Your task to perform on an android device: choose inbox layout in the gmail app Image 0: 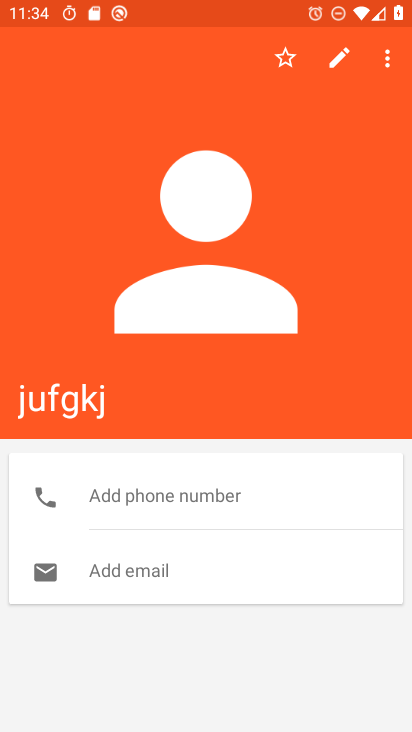
Step 0: press home button
Your task to perform on an android device: choose inbox layout in the gmail app Image 1: 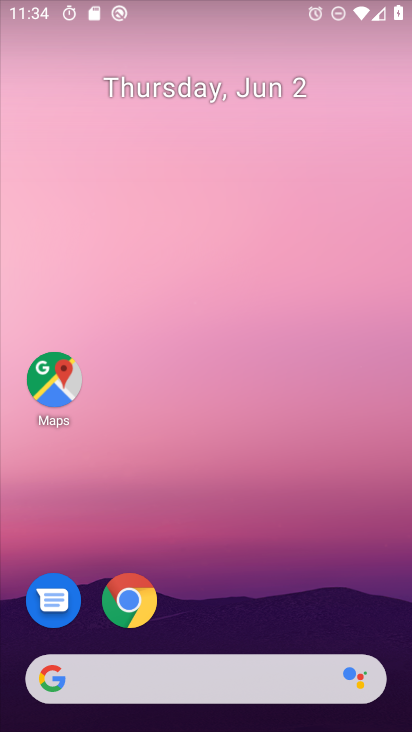
Step 1: drag from (227, 588) to (208, 55)
Your task to perform on an android device: choose inbox layout in the gmail app Image 2: 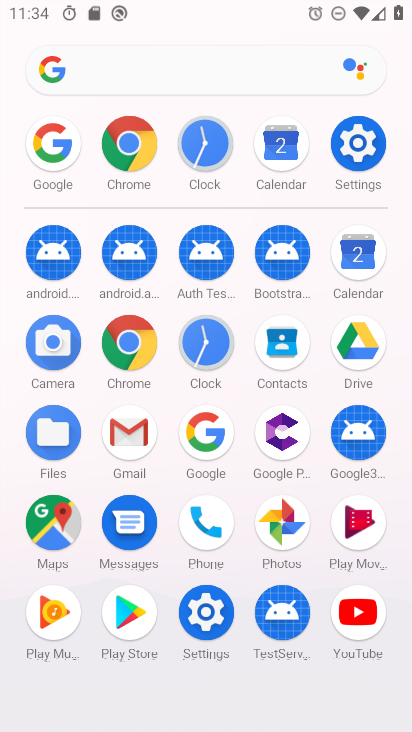
Step 2: click (138, 423)
Your task to perform on an android device: choose inbox layout in the gmail app Image 3: 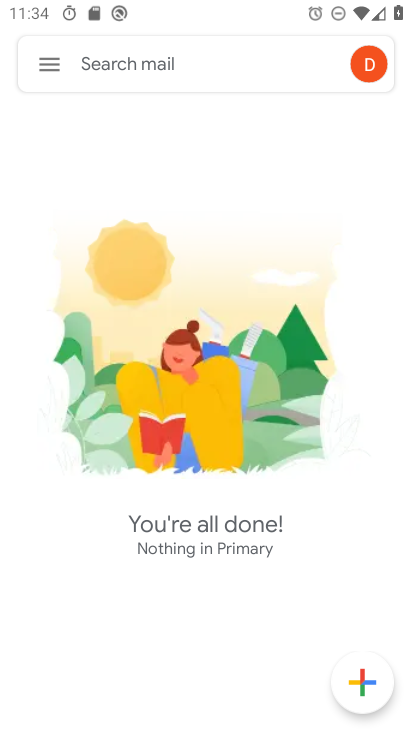
Step 3: click (39, 64)
Your task to perform on an android device: choose inbox layout in the gmail app Image 4: 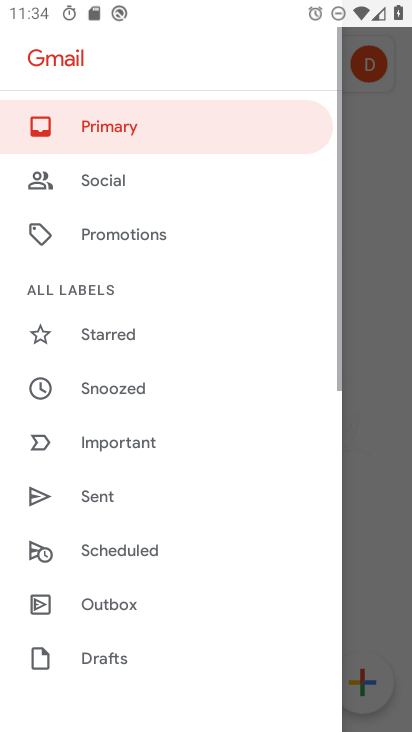
Step 4: drag from (127, 635) to (131, 115)
Your task to perform on an android device: choose inbox layout in the gmail app Image 5: 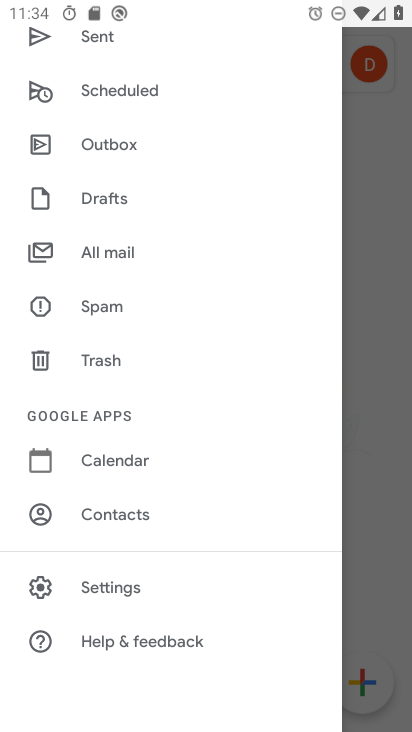
Step 5: click (122, 588)
Your task to perform on an android device: choose inbox layout in the gmail app Image 6: 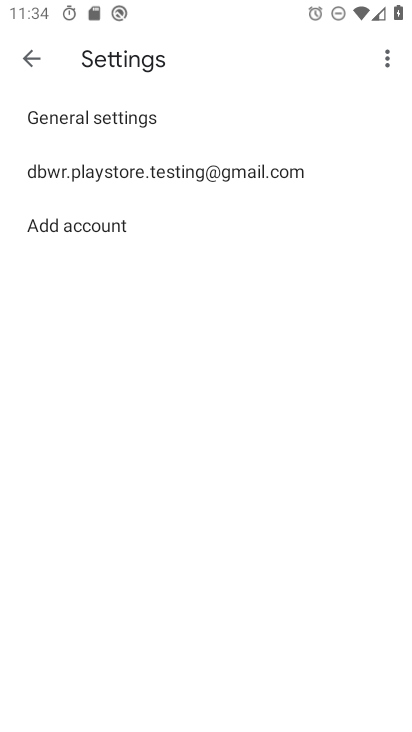
Step 6: click (118, 167)
Your task to perform on an android device: choose inbox layout in the gmail app Image 7: 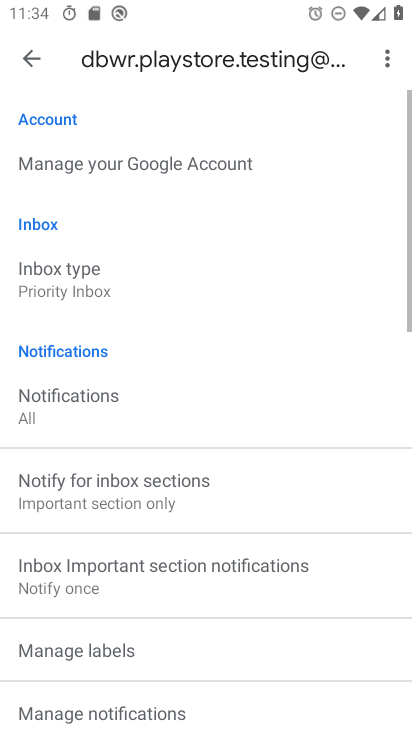
Step 7: click (115, 291)
Your task to perform on an android device: choose inbox layout in the gmail app Image 8: 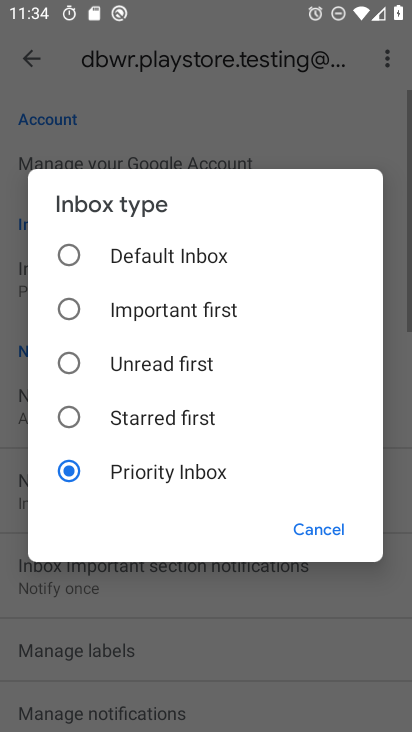
Step 8: click (63, 238)
Your task to perform on an android device: choose inbox layout in the gmail app Image 9: 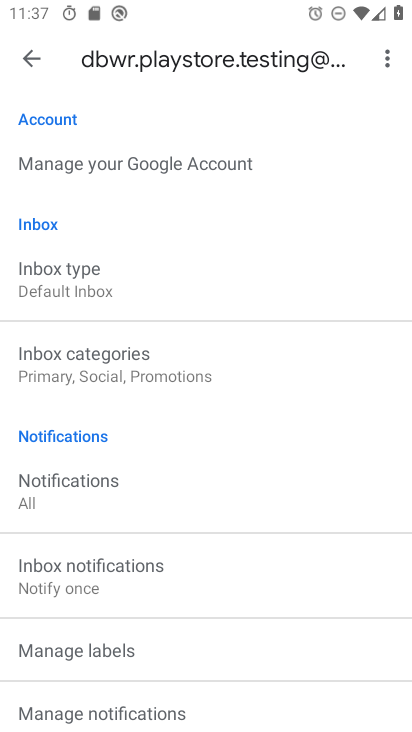
Step 9: task complete